Your task to perform on an android device: Check the weather Image 0: 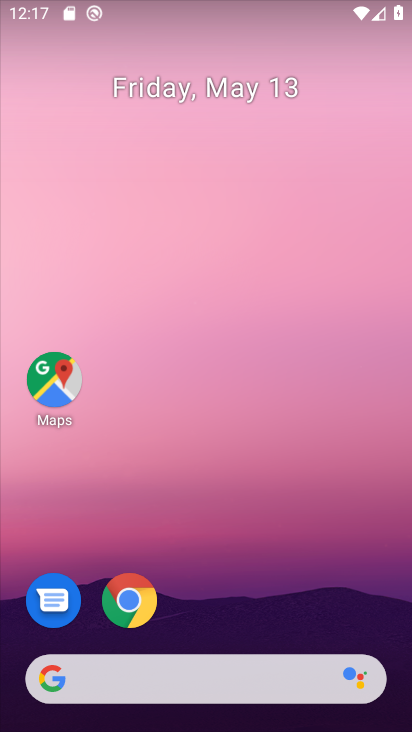
Step 0: click (202, 700)
Your task to perform on an android device: Check the weather Image 1: 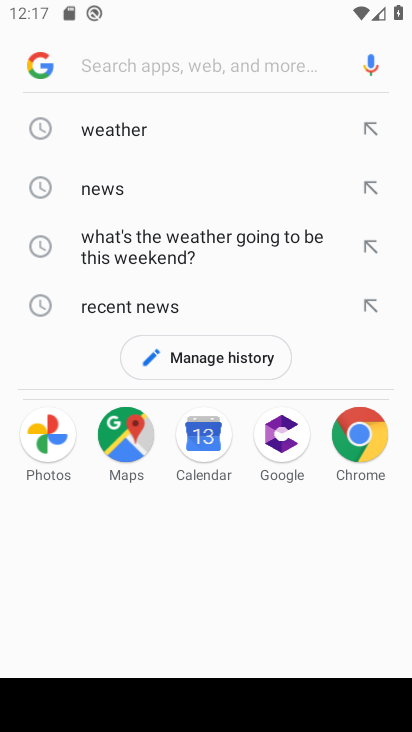
Step 1: click (172, 117)
Your task to perform on an android device: Check the weather Image 2: 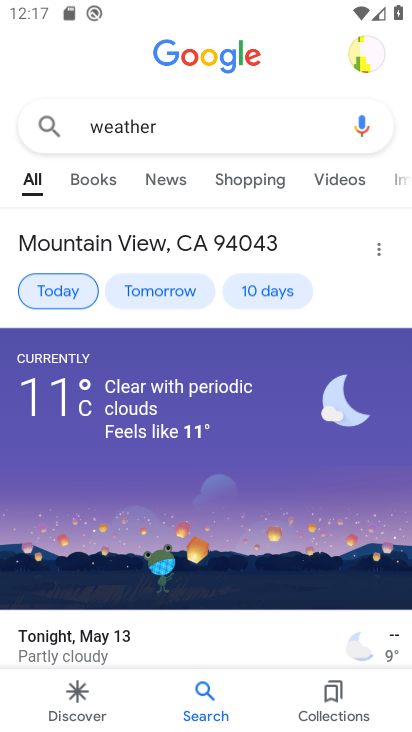
Step 2: task complete